Your task to perform on an android device: Go to Yahoo.com Image 0: 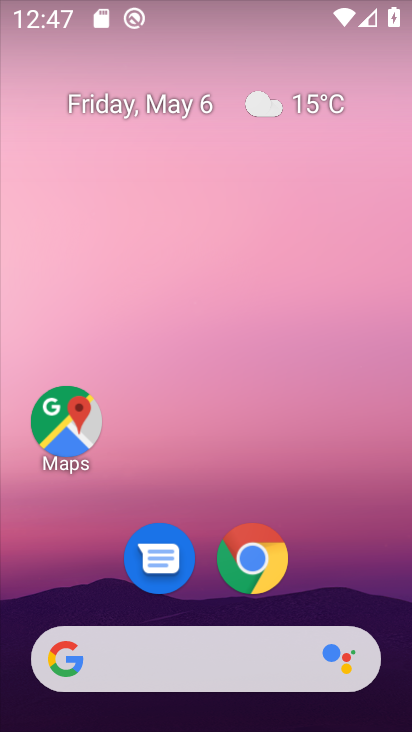
Step 0: click (249, 559)
Your task to perform on an android device: Go to Yahoo.com Image 1: 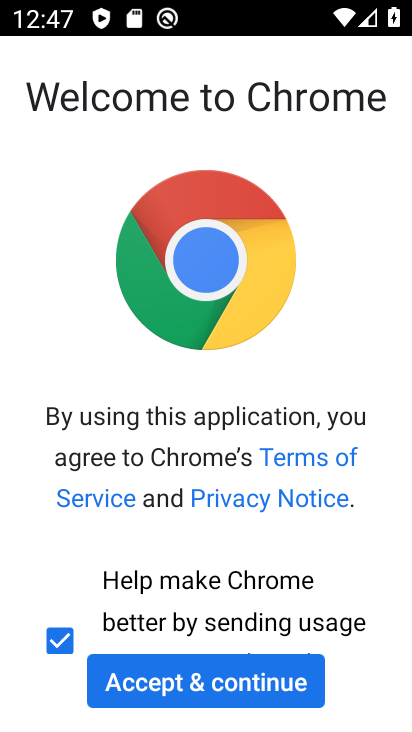
Step 1: click (222, 683)
Your task to perform on an android device: Go to Yahoo.com Image 2: 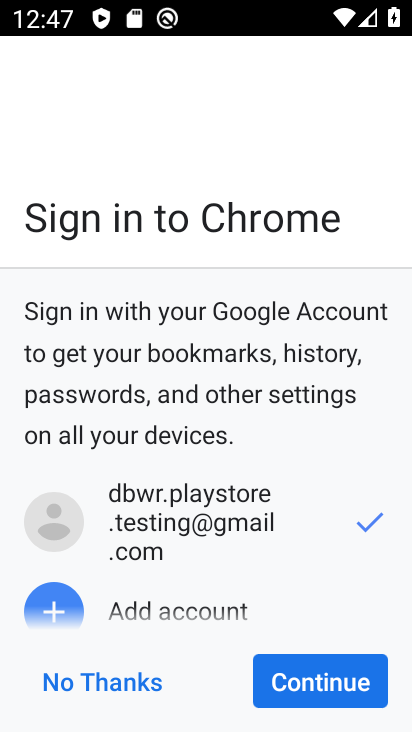
Step 2: click (321, 680)
Your task to perform on an android device: Go to Yahoo.com Image 3: 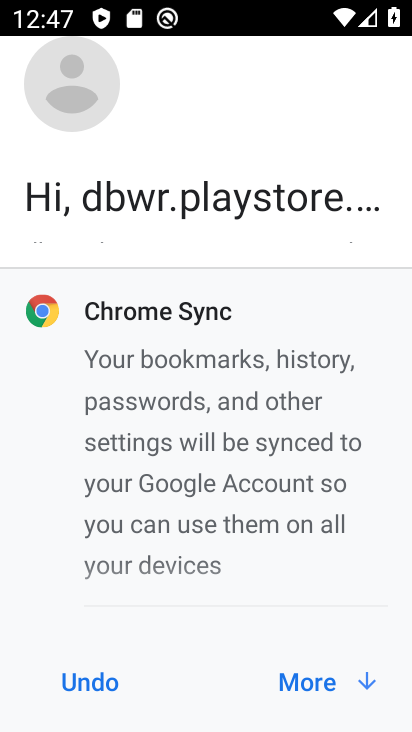
Step 3: click (323, 677)
Your task to perform on an android device: Go to Yahoo.com Image 4: 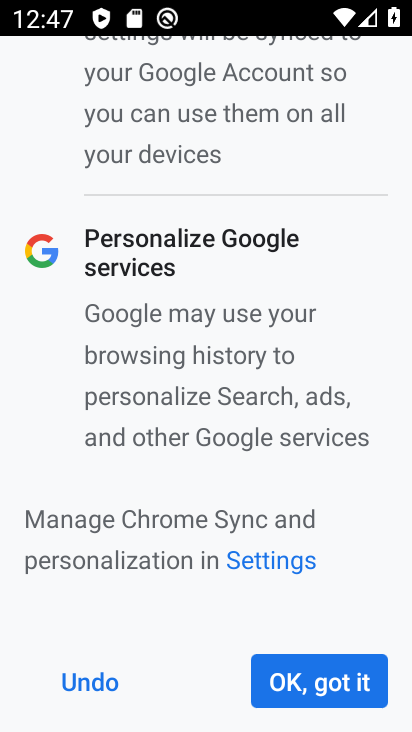
Step 4: click (312, 683)
Your task to perform on an android device: Go to Yahoo.com Image 5: 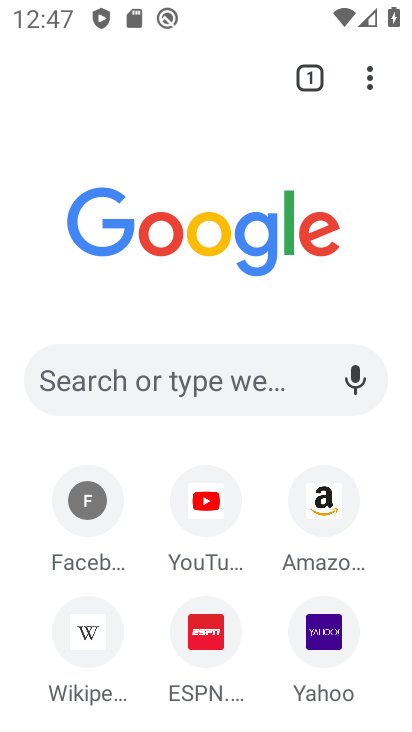
Step 5: click (322, 635)
Your task to perform on an android device: Go to Yahoo.com Image 6: 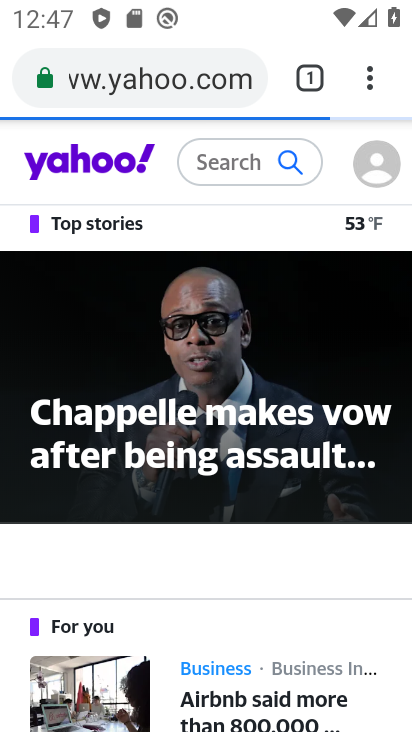
Step 6: task complete